Your task to perform on an android device: Add logitech g903 to the cart on bestbuy, then select checkout. Image 0: 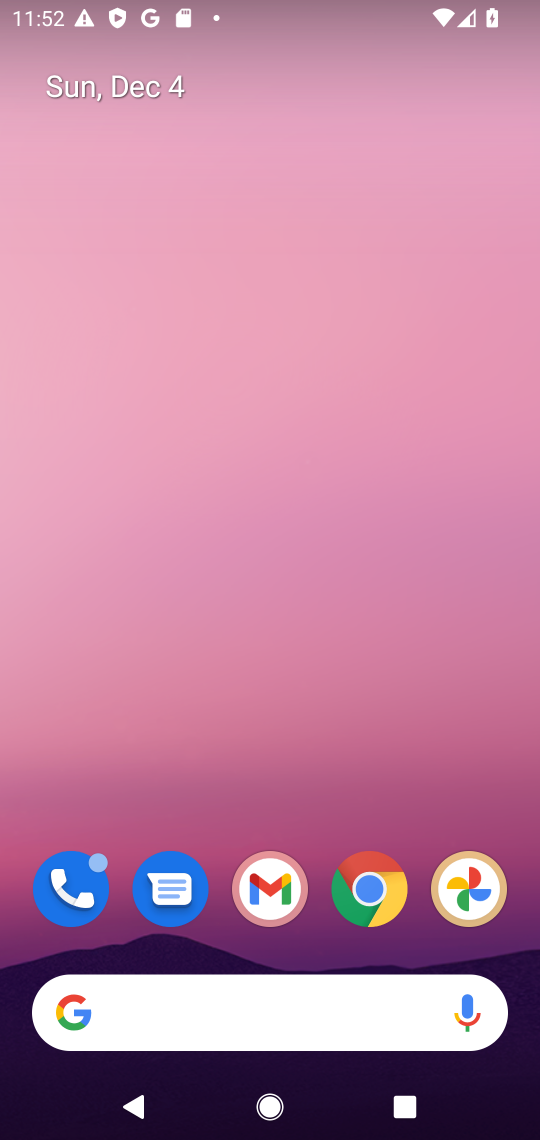
Step 0: click (350, 899)
Your task to perform on an android device: Add logitech g903 to the cart on bestbuy, then select checkout. Image 1: 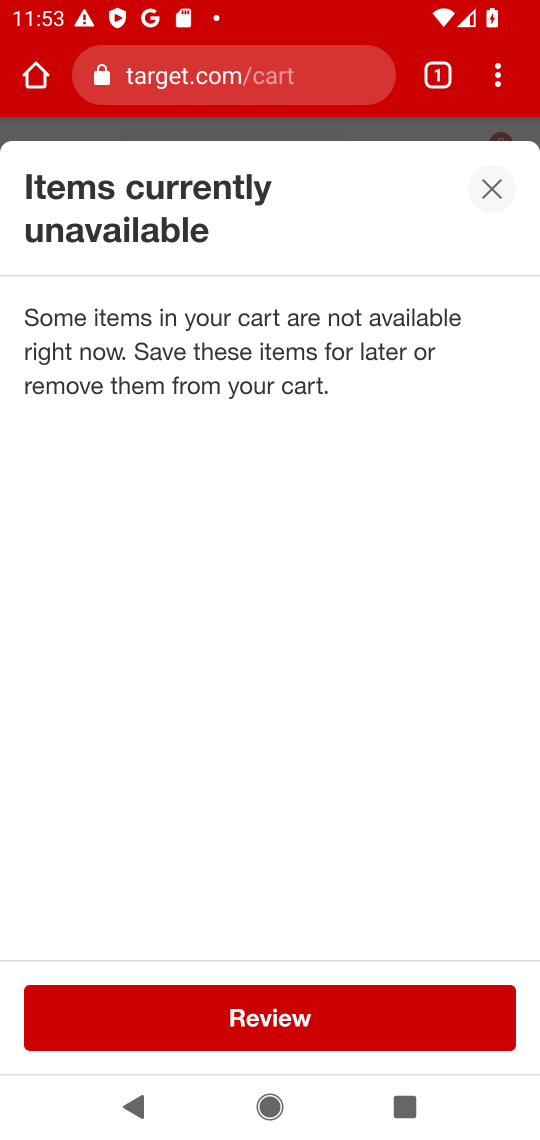
Step 1: click (312, 65)
Your task to perform on an android device: Add logitech g903 to the cart on bestbuy, then select checkout. Image 2: 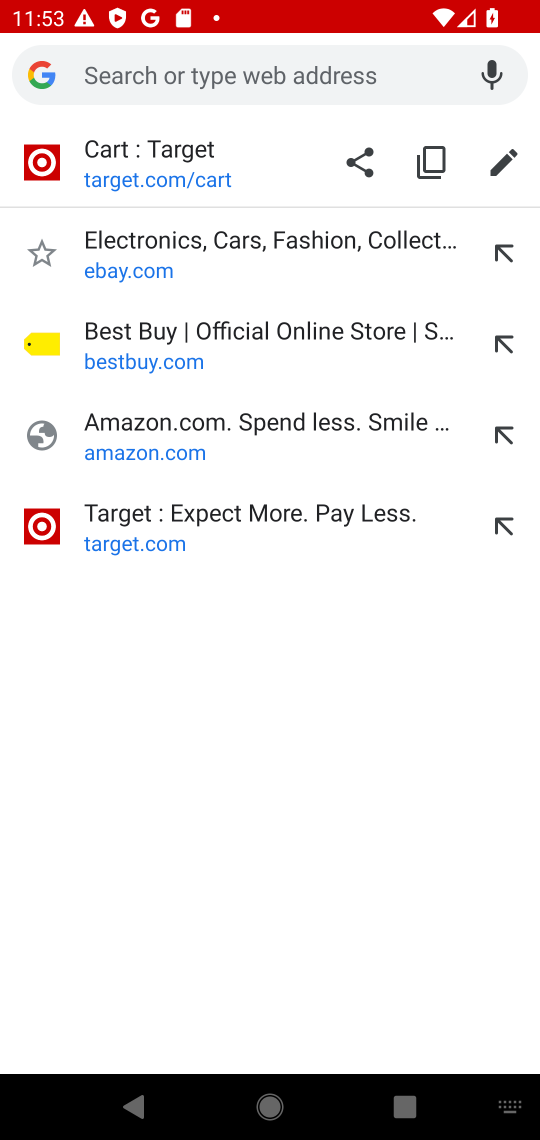
Step 2: click (172, 329)
Your task to perform on an android device: Add logitech g903 to the cart on bestbuy, then select checkout. Image 3: 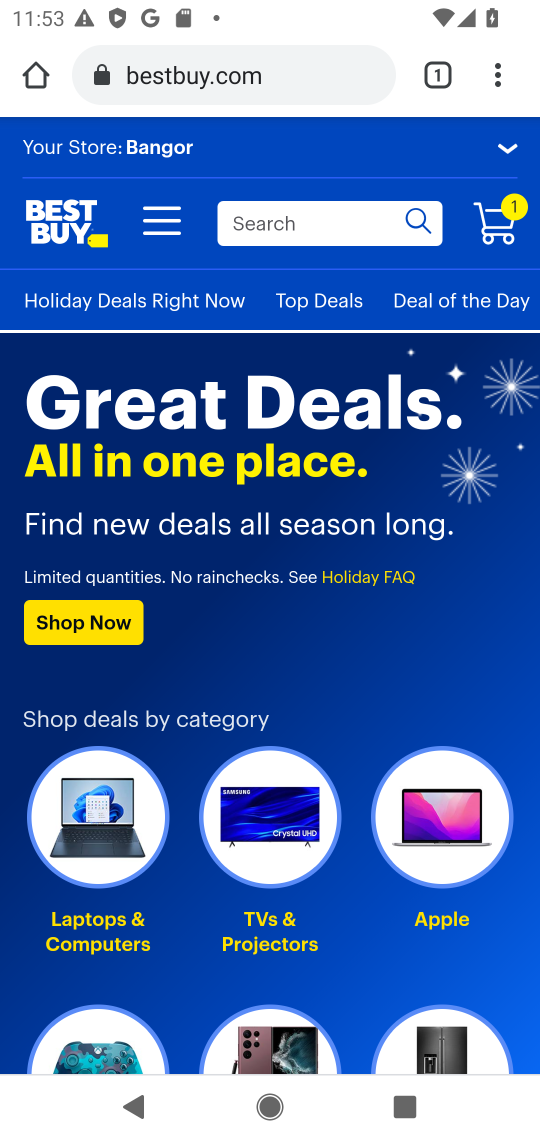
Step 3: click (344, 223)
Your task to perform on an android device: Add logitech g903 to the cart on bestbuy, then select checkout. Image 4: 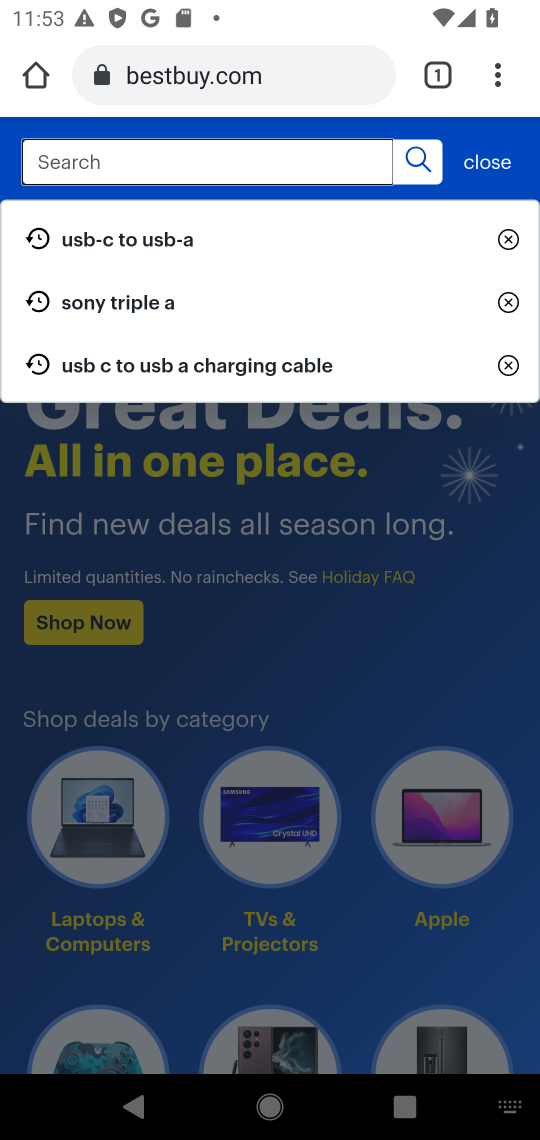
Step 4: press enter
Your task to perform on an android device: Add logitech g903 to the cart on bestbuy, then select checkout. Image 5: 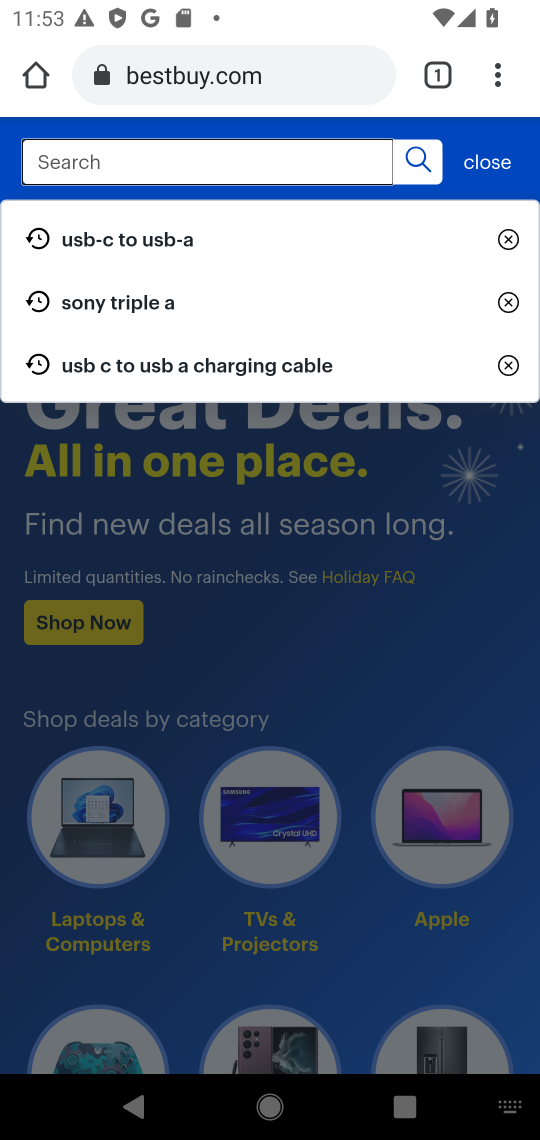
Step 5: type "logitech g903"
Your task to perform on an android device: Add logitech g903 to the cart on bestbuy, then select checkout. Image 6: 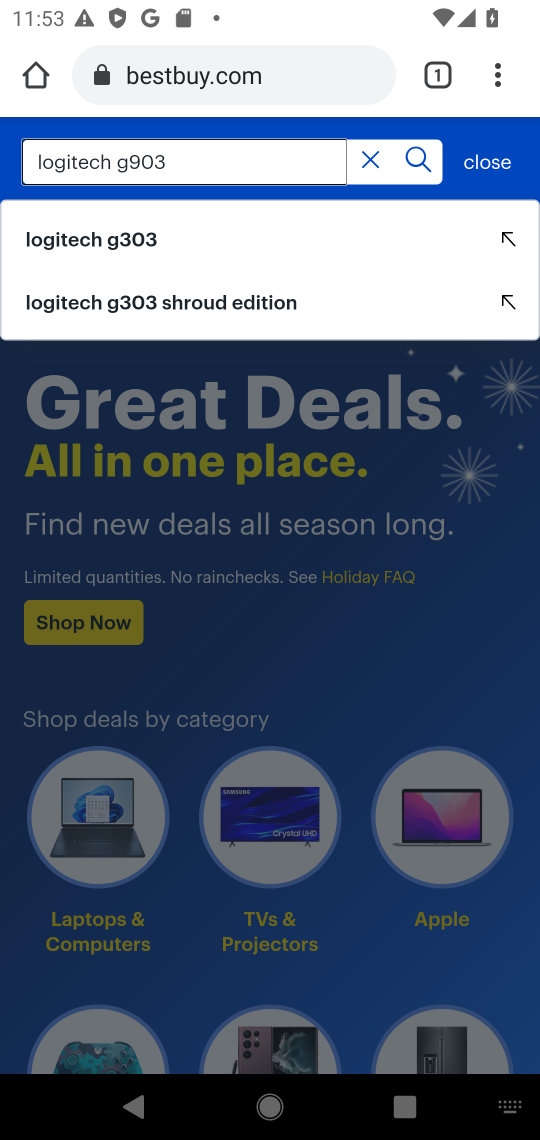
Step 6: click (132, 234)
Your task to perform on an android device: Add logitech g903 to the cart on bestbuy, then select checkout. Image 7: 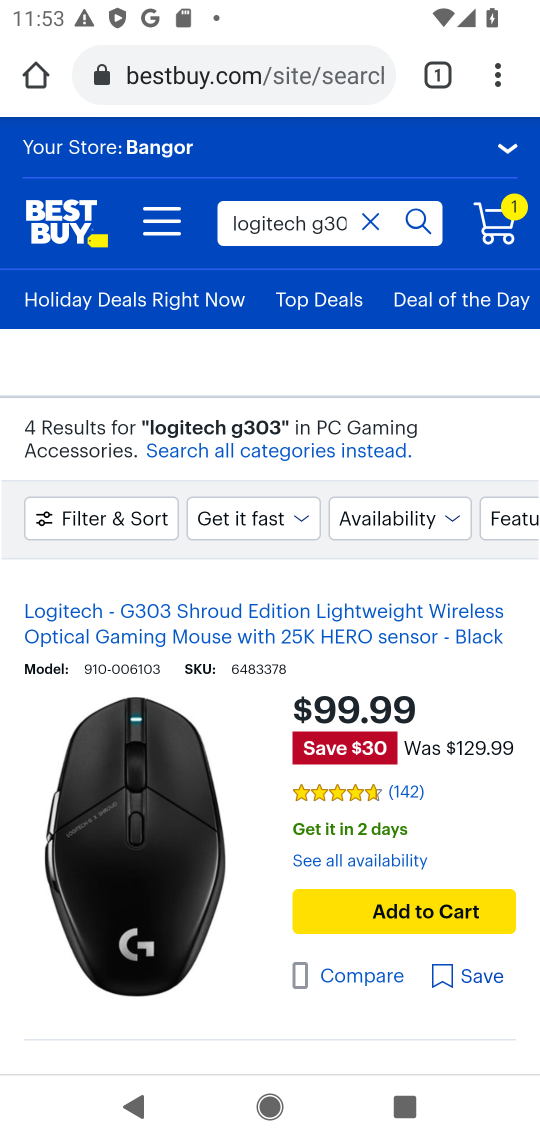
Step 7: click (143, 793)
Your task to perform on an android device: Add logitech g903 to the cart on bestbuy, then select checkout. Image 8: 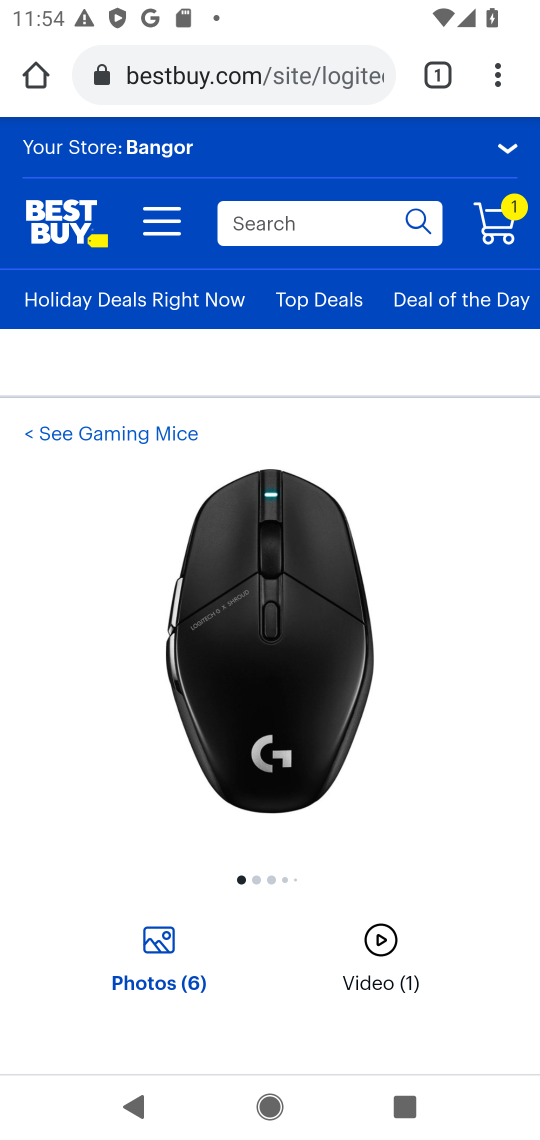
Step 8: press back button
Your task to perform on an android device: Add logitech g903 to the cart on bestbuy, then select checkout. Image 9: 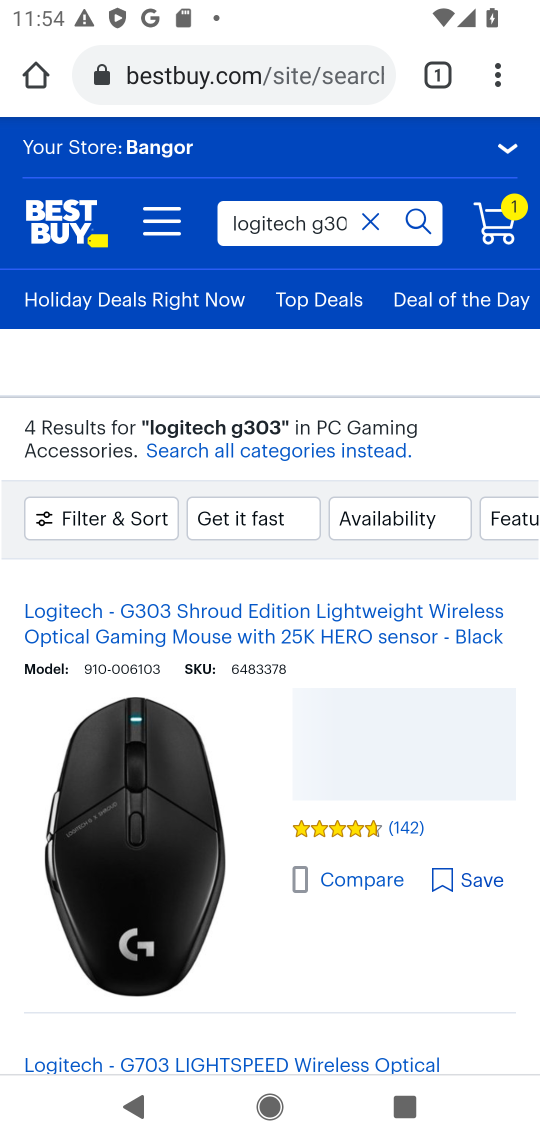
Step 9: drag from (236, 771) to (207, 318)
Your task to perform on an android device: Add logitech g903 to the cart on bestbuy, then select checkout. Image 10: 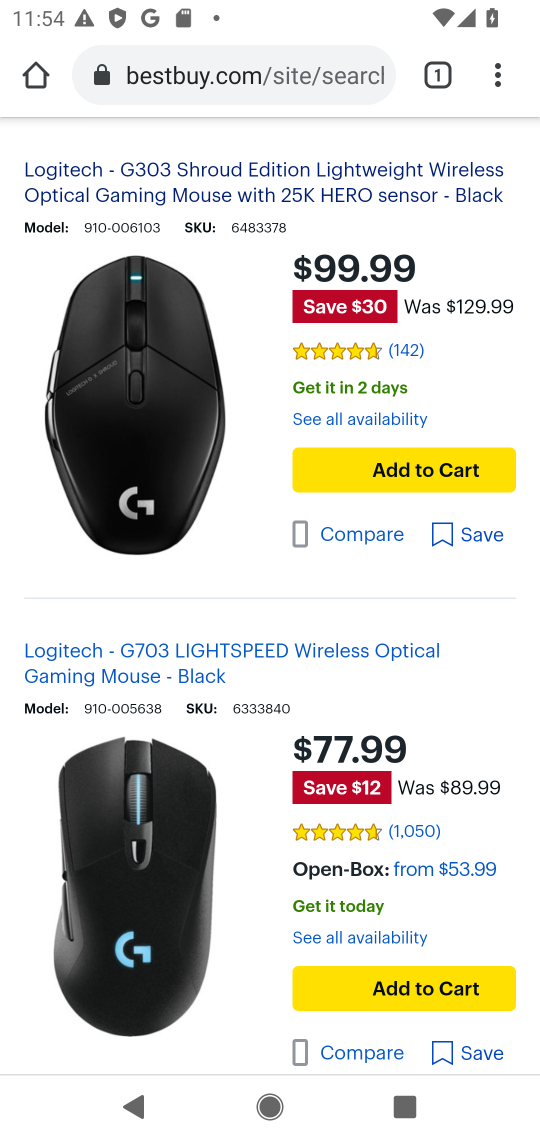
Step 10: drag from (229, 845) to (258, 313)
Your task to perform on an android device: Add logitech g903 to the cart on bestbuy, then select checkout. Image 11: 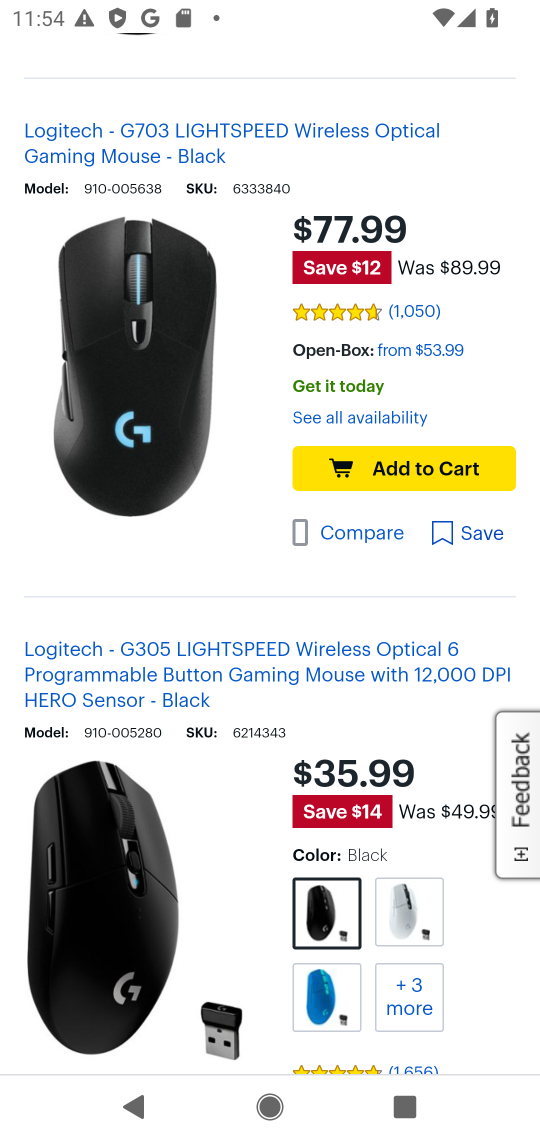
Step 11: drag from (165, 851) to (217, 325)
Your task to perform on an android device: Add logitech g903 to the cart on bestbuy, then select checkout. Image 12: 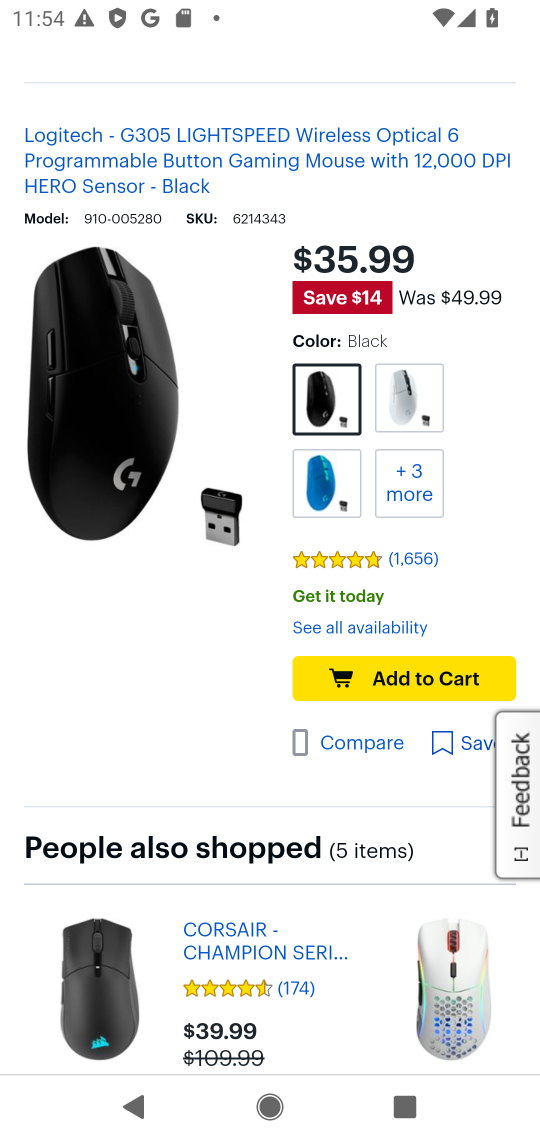
Step 12: drag from (330, 905) to (293, 236)
Your task to perform on an android device: Add logitech g903 to the cart on bestbuy, then select checkout. Image 13: 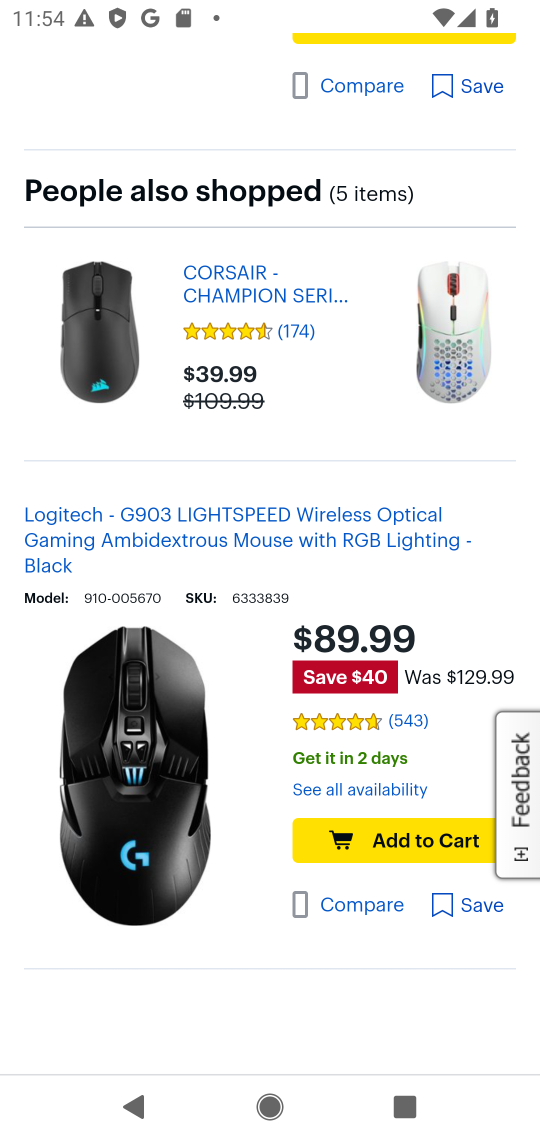
Step 13: click (142, 726)
Your task to perform on an android device: Add logitech g903 to the cart on bestbuy, then select checkout. Image 14: 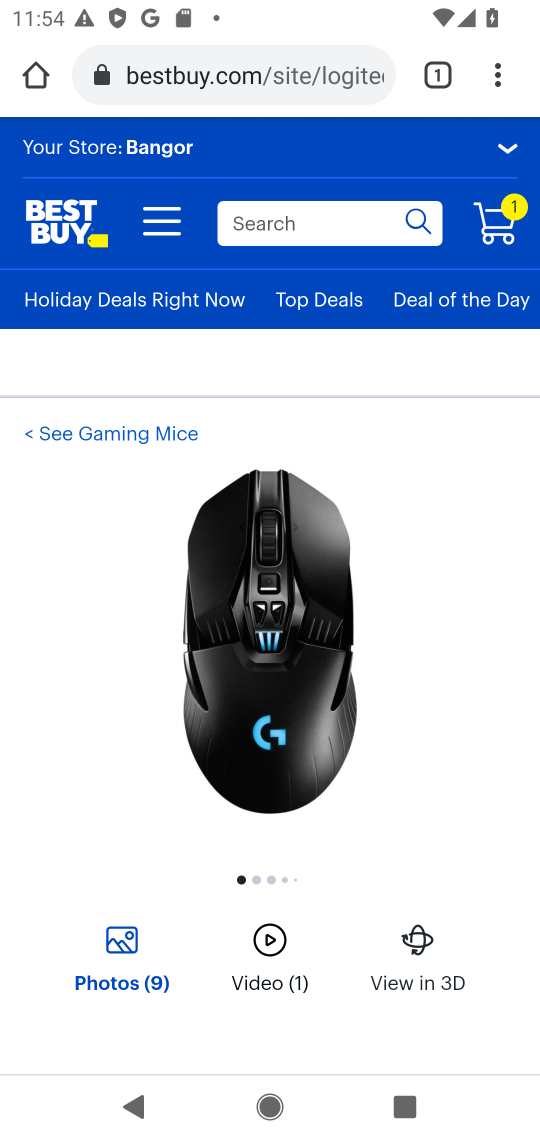
Step 14: drag from (435, 722) to (397, 83)
Your task to perform on an android device: Add logitech g903 to the cart on bestbuy, then select checkout. Image 15: 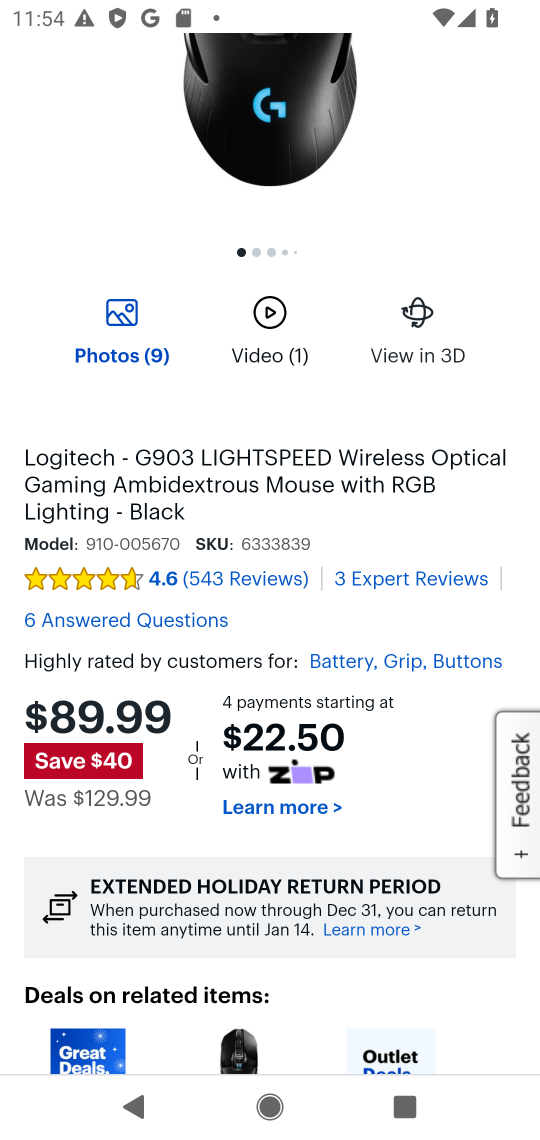
Step 15: drag from (402, 810) to (321, 138)
Your task to perform on an android device: Add logitech g903 to the cart on bestbuy, then select checkout. Image 16: 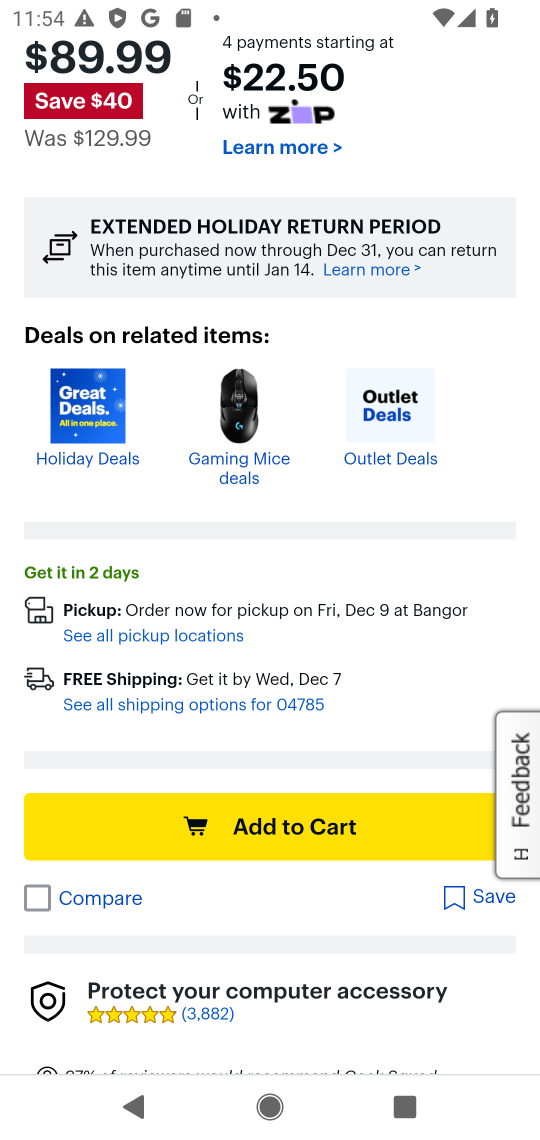
Step 16: click (289, 833)
Your task to perform on an android device: Add logitech g903 to the cart on bestbuy, then select checkout. Image 17: 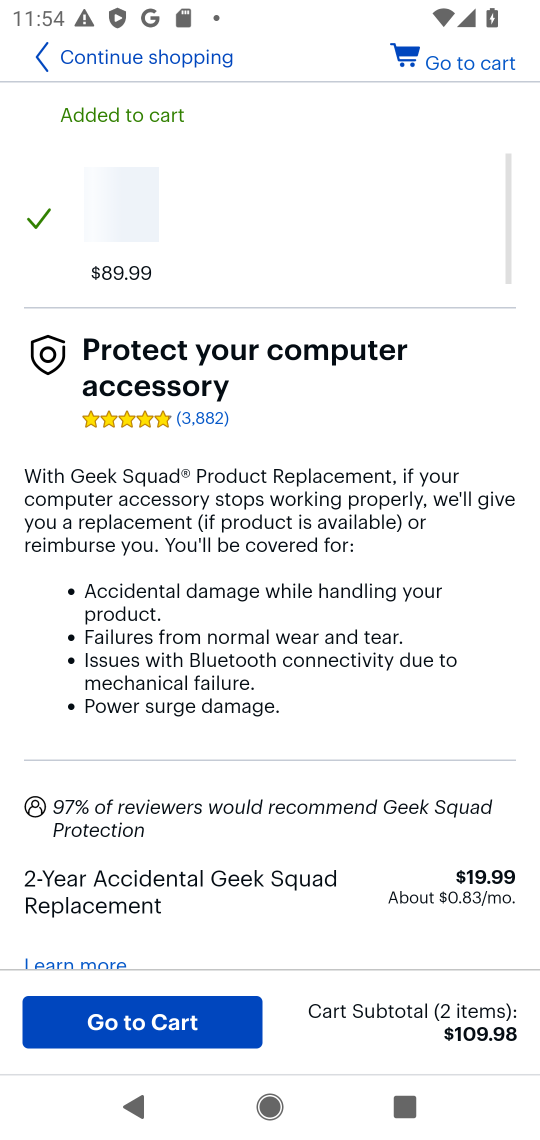
Step 17: click (164, 1030)
Your task to perform on an android device: Add logitech g903 to the cart on bestbuy, then select checkout. Image 18: 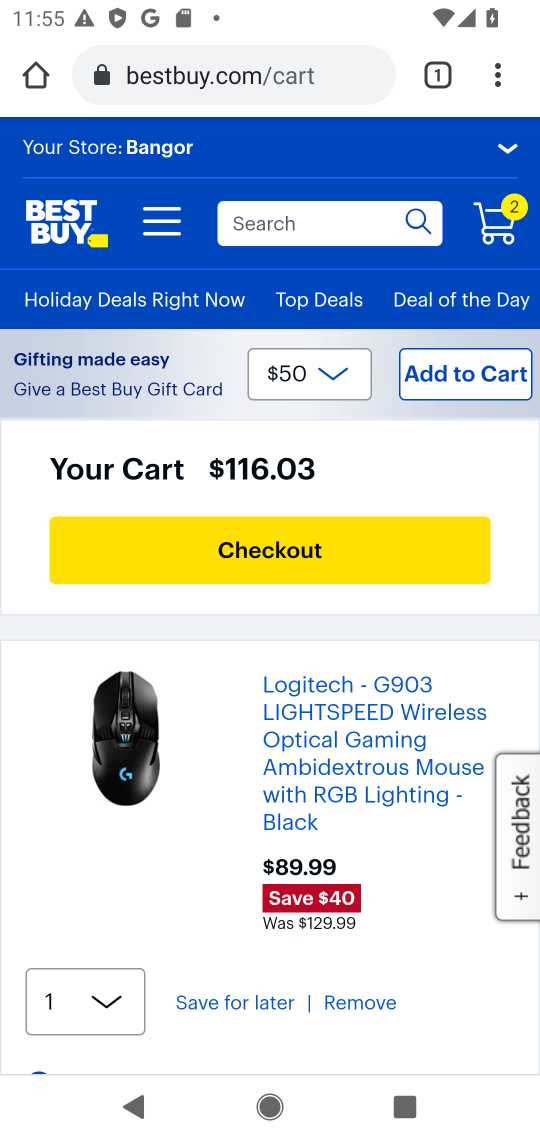
Step 18: click (329, 549)
Your task to perform on an android device: Add logitech g903 to the cart on bestbuy, then select checkout. Image 19: 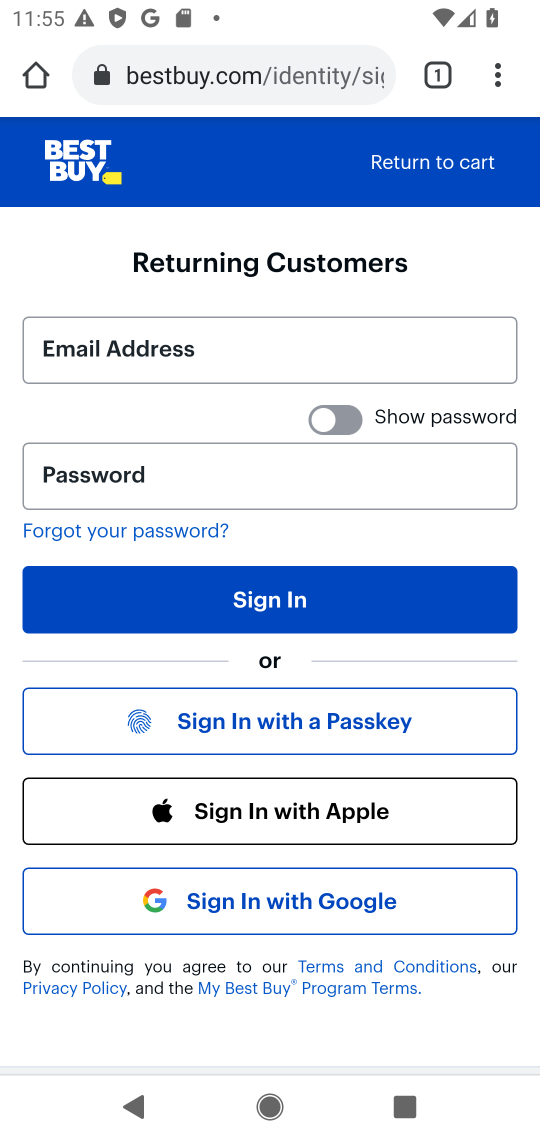
Step 19: task complete